Your task to perform on an android device: turn off translation in the chrome app Image 0: 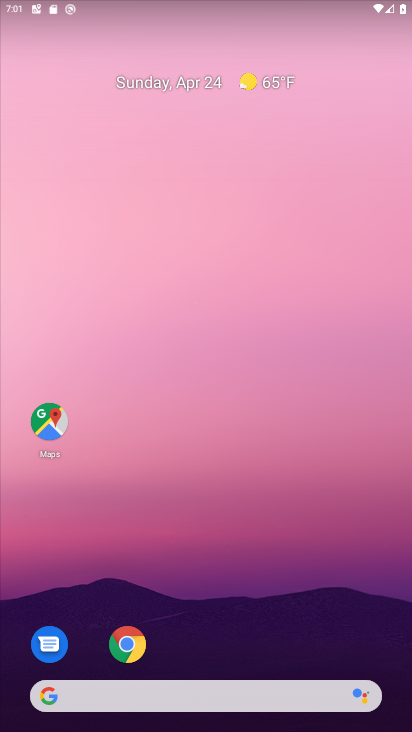
Step 0: press home button
Your task to perform on an android device: turn off translation in the chrome app Image 1: 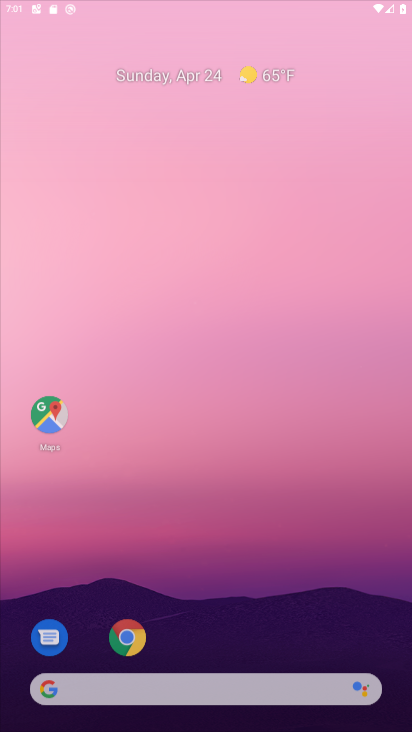
Step 1: drag from (202, 662) to (230, 87)
Your task to perform on an android device: turn off translation in the chrome app Image 2: 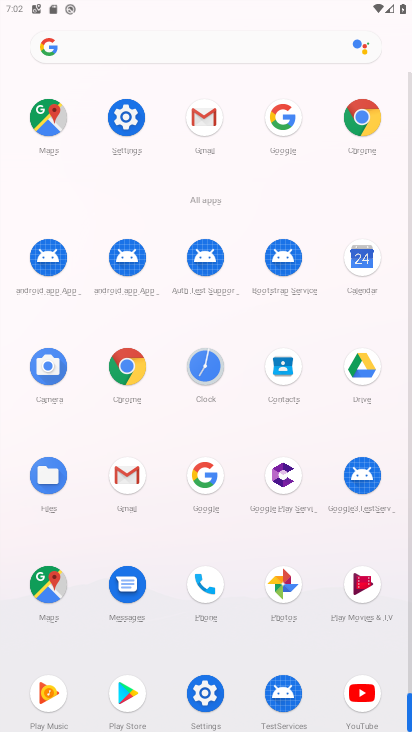
Step 2: click (125, 364)
Your task to perform on an android device: turn off translation in the chrome app Image 3: 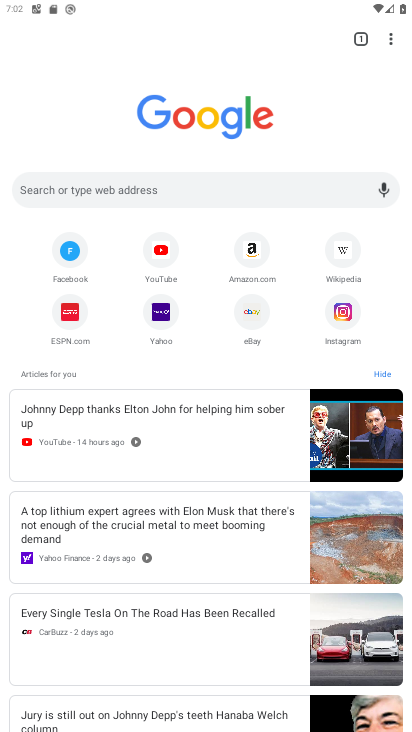
Step 3: click (389, 37)
Your task to perform on an android device: turn off translation in the chrome app Image 4: 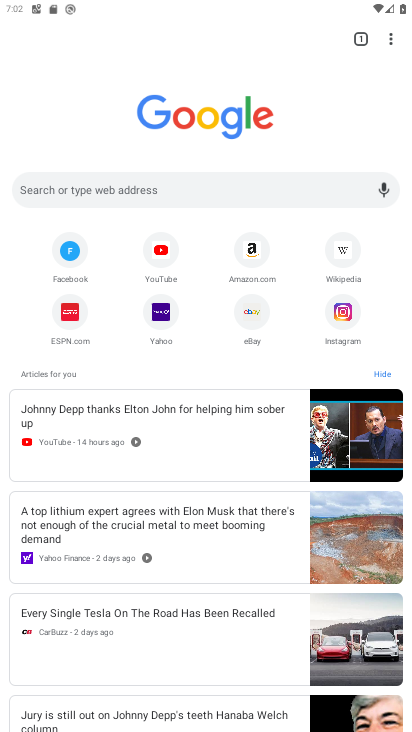
Step 4: click (392, 35)
Your task to perform on an android device: turn off translation in the chrome app Image 5: 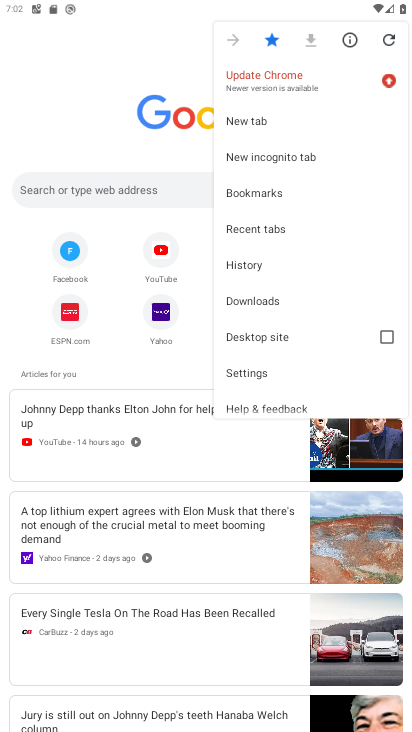
Step 5: click (272, 372)
Your task to perform on an android device: turn off translation in the chrome app Image 6: 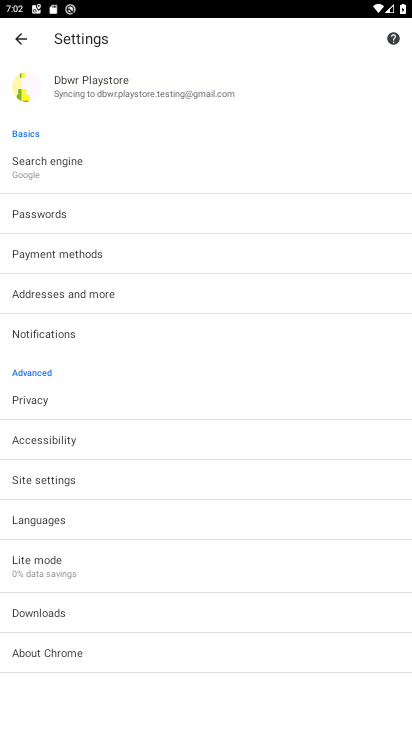
Step 6: click (77, 514)
Your task to perform on an android device: turn off translation in the chrome app Image 7: 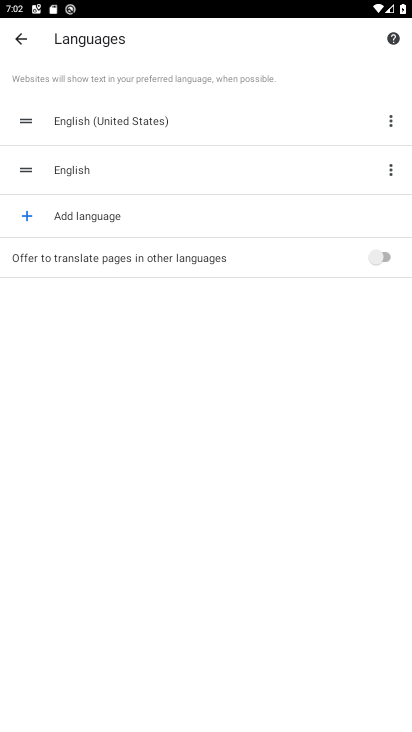
Step 7: task complete